Your task to perform on an android device: manage bookmarks in the chrome app Image 0: 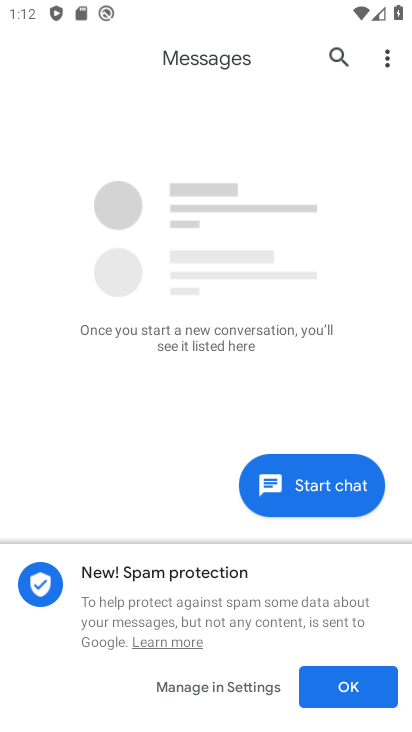
Step 0: press home button
Your task to perform on an android device: manage bookmarks in the chrome app Image 1: 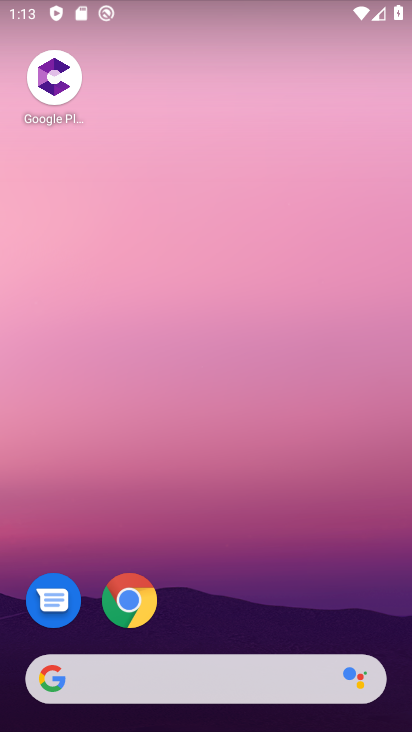
Step 1: drag from (200, 658) to (197, 201)
Your task to perform on an android device: manage bookmarks in the chrome app Image 2: 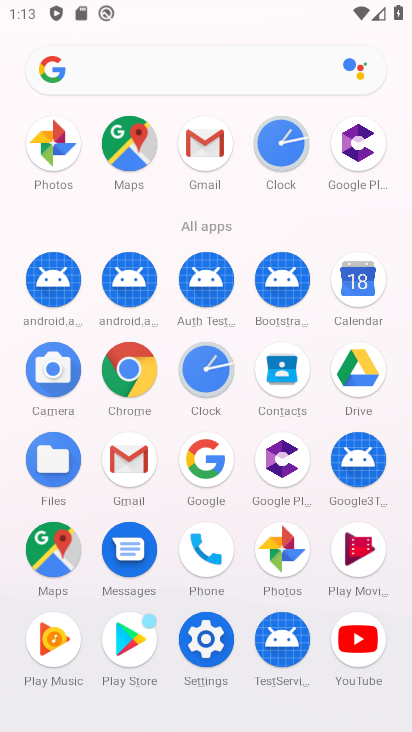
Step 2: click (128, 381)
Your task to perform on an android device: manage bookmarks in the chrome app Image 3: 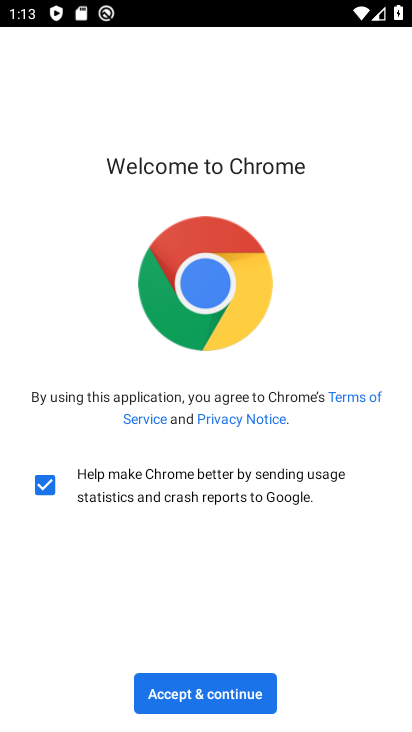
Step 3: click (224, 696)
Your task to perform on an android device: manage bookmarks in the chrome app Image 4: 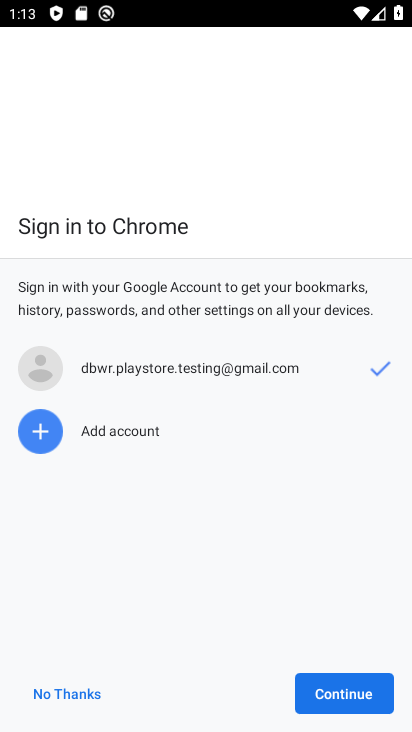
Step 4: click (334, 700)
Your task to perform on an android device: manage bookmarks in the chrome app Image 5: 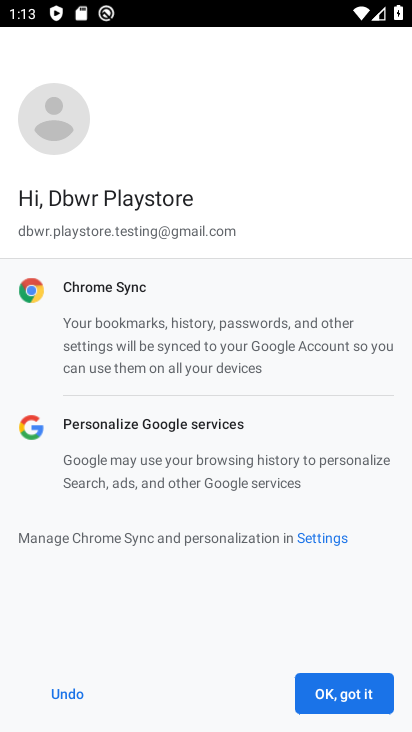
Step 5: click (334, 703)
Your task to perform on an android device: manage bookmarks in the chrome app Image 6: 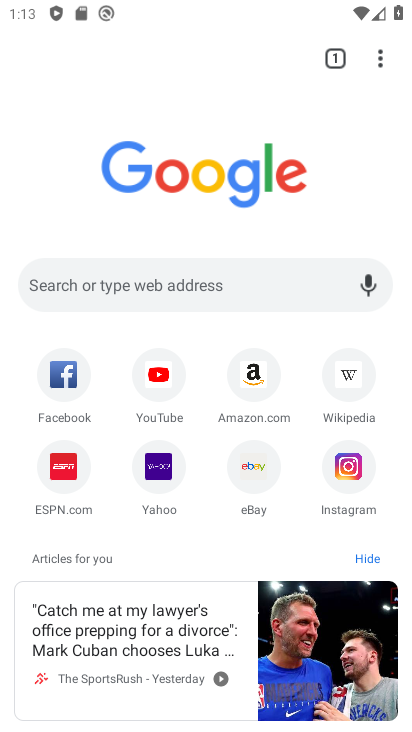
Step 6: click (379, 63)
Your task to perform on an android device: manage bookmarks in the chrome app Image 7: 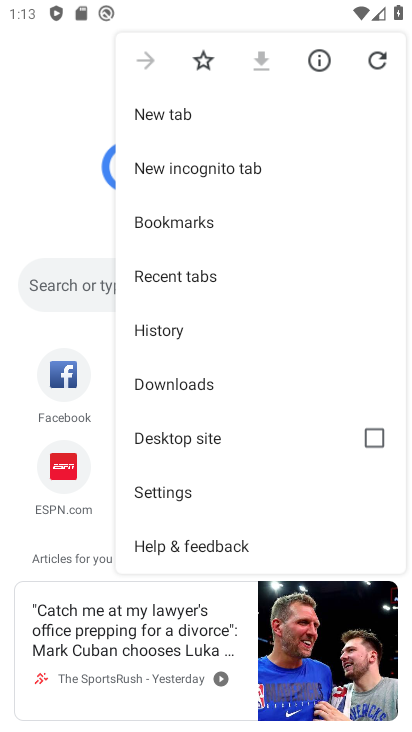
Step 7: click (180, 495)
Your task to perform on an android device: manage bookmarks in the chrome app Image 8: 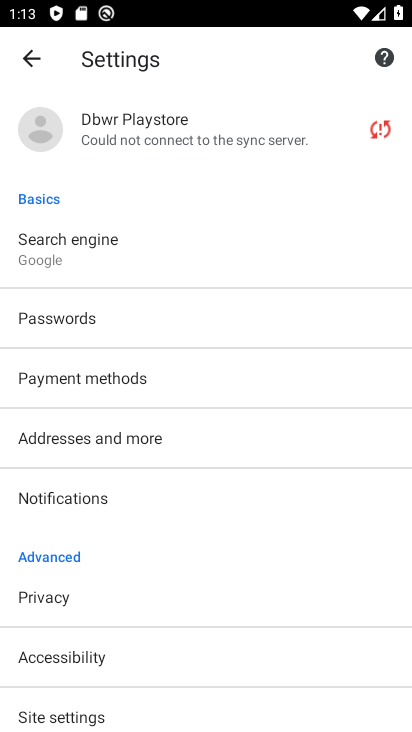
Step 8: drag from (105, 697) to (115, 329)
Your task to perform on an android device: manage bookmarks in the chrome app Image 9: 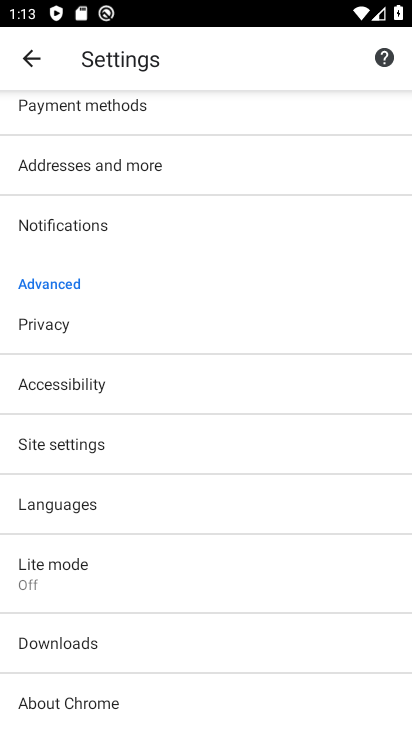
Step 9: click (29, 62)
Your task to perform on an android device: manage bookmarks in the chrome app Image 10: 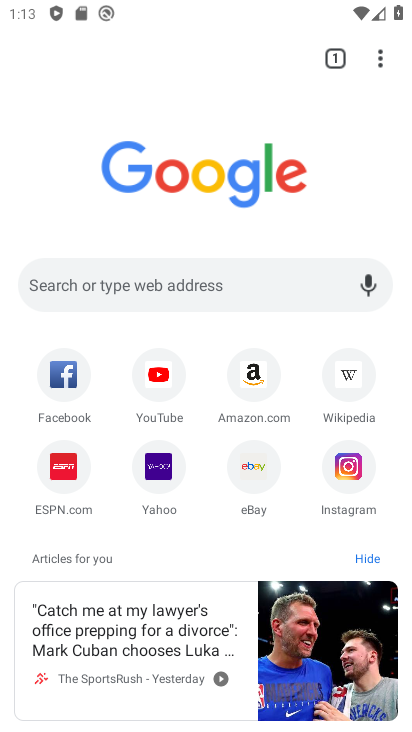
Step 10: click (377, 57)
Your task to perform on an android device: manage bookmarks in the chrome app Image 11: 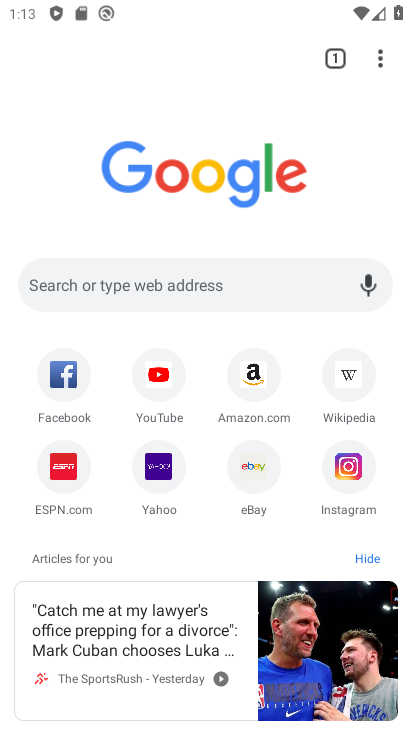
Step 11: click (380, 62)
Your task to perform on an android device: manage bookmarks in the chrome app Image 12: 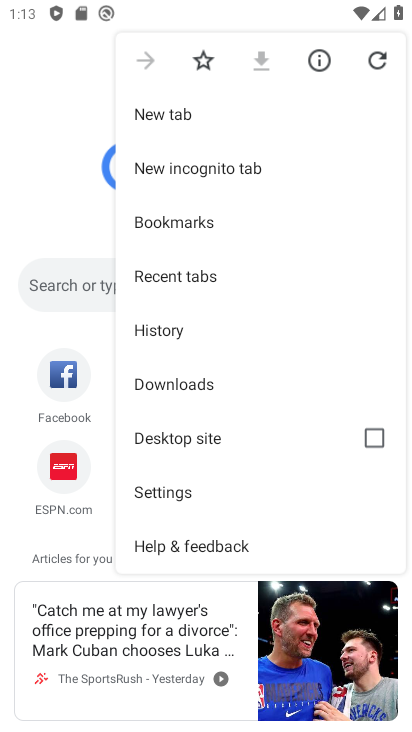
Step 12: click (192, 221)
Your task to perform on an android device: manage bookmarks in the chrome app Image 13: 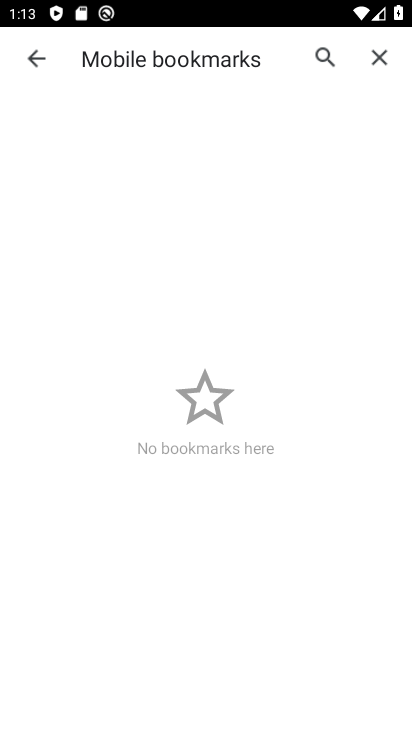
Step 13: task complete